Your task to perform on an android device: Go to network settings Image 0: 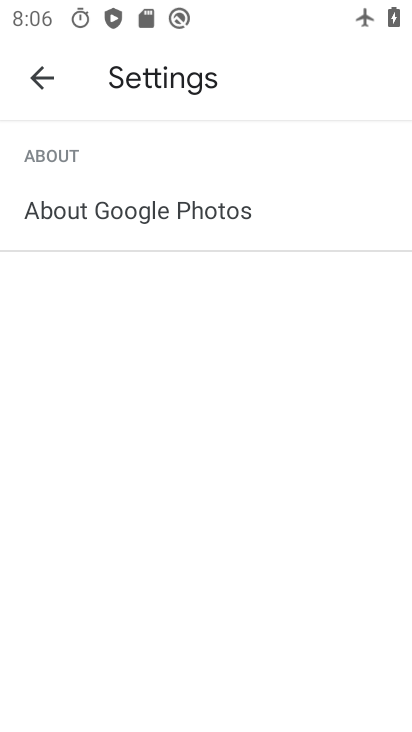
Step 0: press back button
Your task to perform on an android device: Go to network settings Image 1: 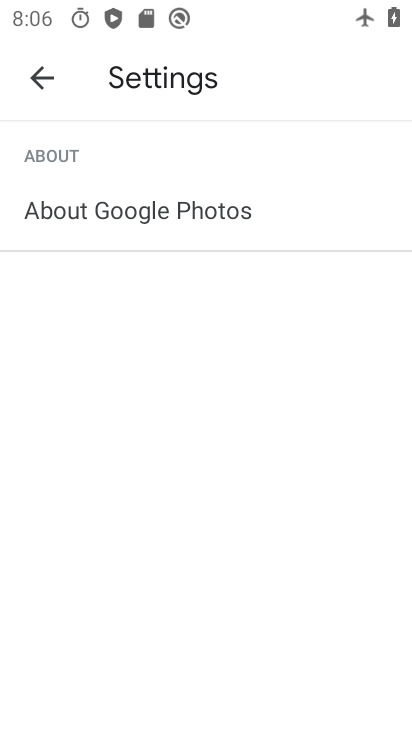
Step 1: press back button
Your task to perform on an android device: Go to network settings Image 2: 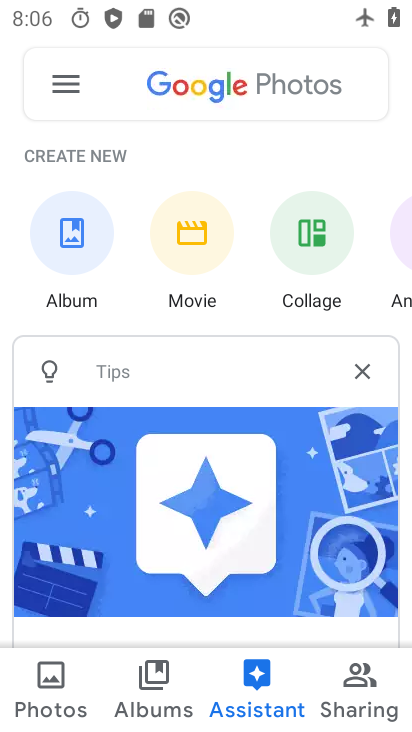
Step 2: press back button
Your task to perform on an android device: Go to network settings Image 3: 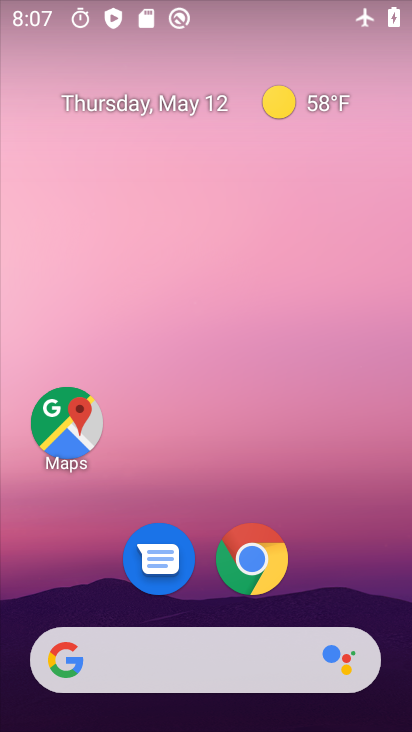
Step 3: drag from (329, 553) to (269, 273)
Your task to perform on an android device: Go to network settings Image 4: 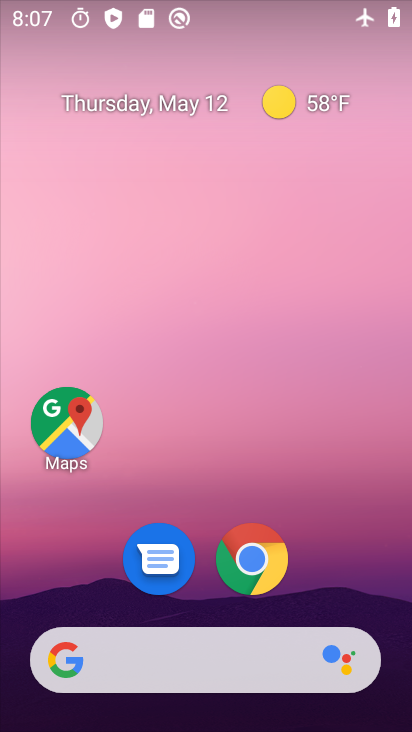
Step 4: drag from (332, 583) to (277, 165)
Your task to perform on an android device: Go to network settings Image 5: 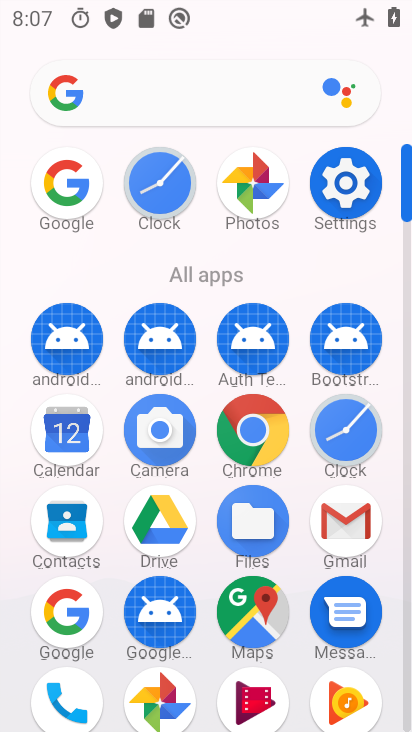
Step 5: click (346, 179)
Your task to perform on an android device: Go to network settings Image 6: 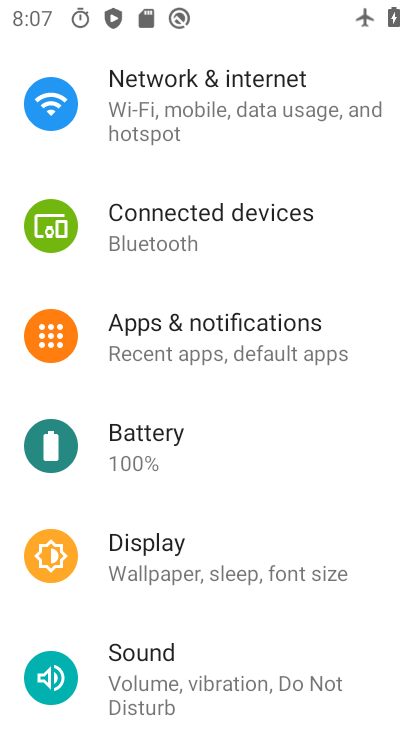
Step 6: click (259, 89)
Your task to perform on an android device: Go to network settings Image 7: 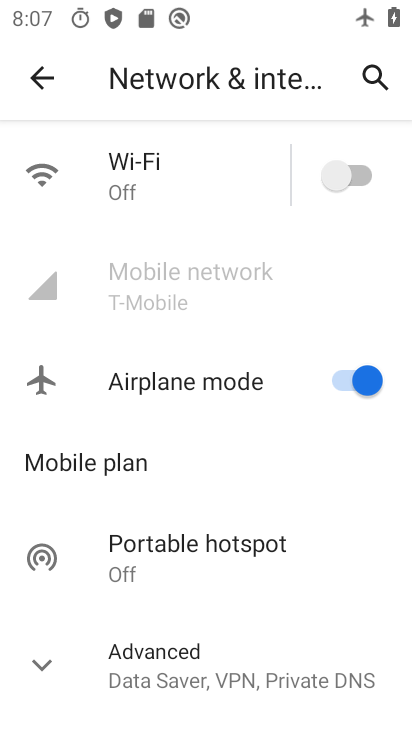
Step 7: task complete